Your task to perform on an android device: Show me productivity apps on the Play Store Image 0: 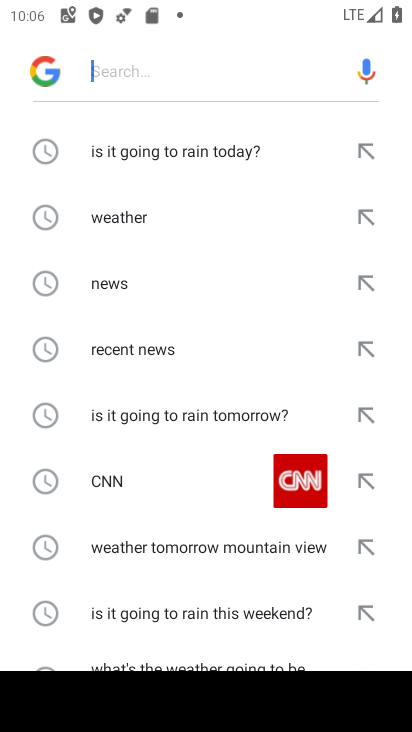
Step 0: press home button
Your task to perform on an android device: Show me productivity apps on the Play Store Image 1: 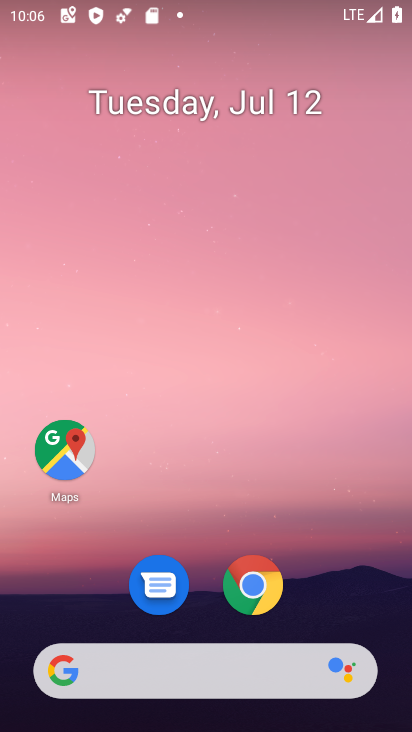
Step 1: drag from (188, 651) to (318, 157)
Your task to perform on an android device: Show me productivity apps on the Play Store Image 2: 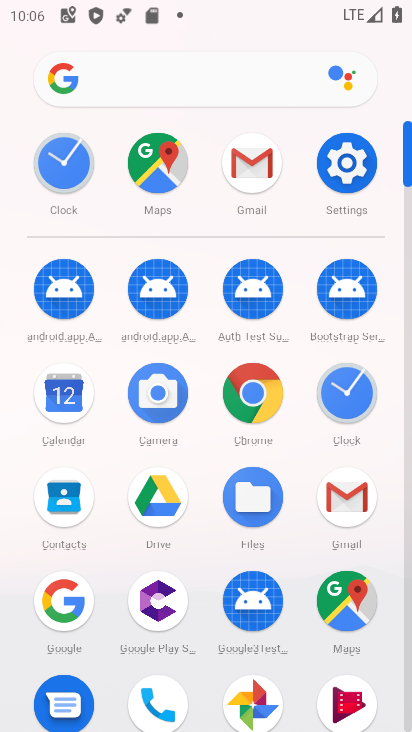
Step 2: drag from (193, 633) to (297, 200)
Your task to perform on an android device: Show me productivity apps on the Play Store Image 3: 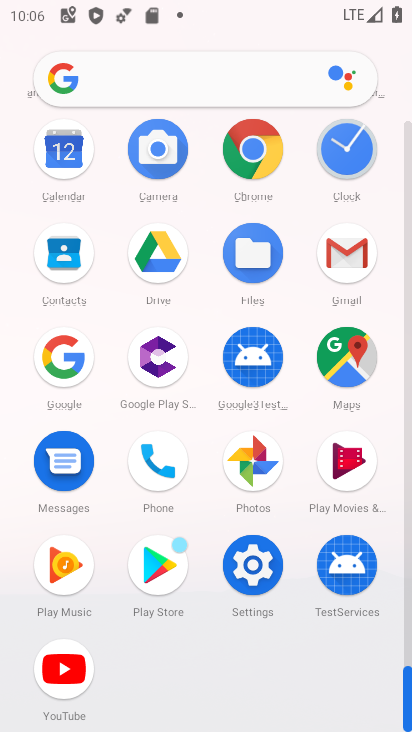
Step 3: click (162, 566)
Your task to perform on an android device: Show me productivity apps on the Play Store Image 4: 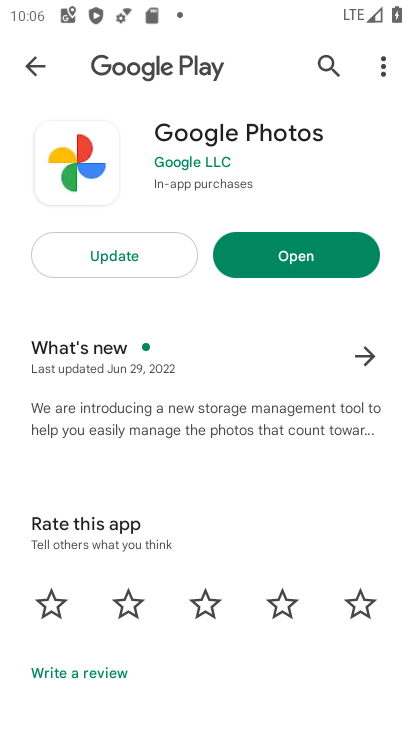
Step 4: click (31, 67)
Your task to perform on an android device: Show me productivity apps on the Play Store Image 5: 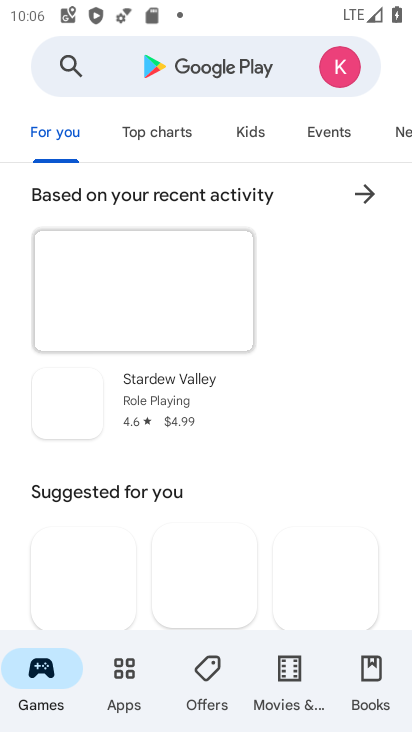
Step 5: click (128, 687)
Your task to perform on an android device: Show me productivity apps on the Play Store Image 6: 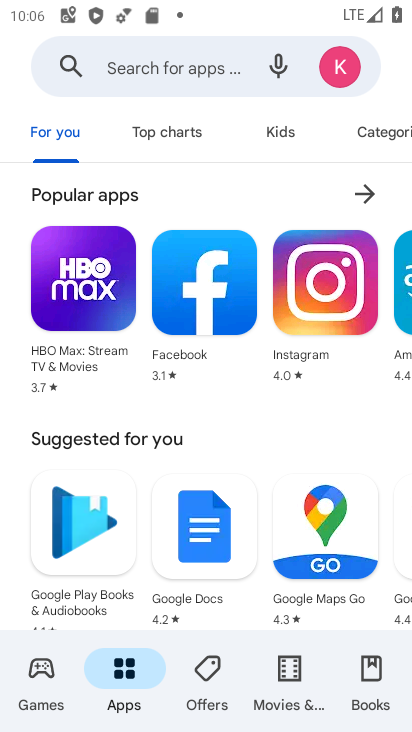
Step 6: click (386, 135)
Your task to perform on an android device: Show me productivity apps on the Play Store Image 7: 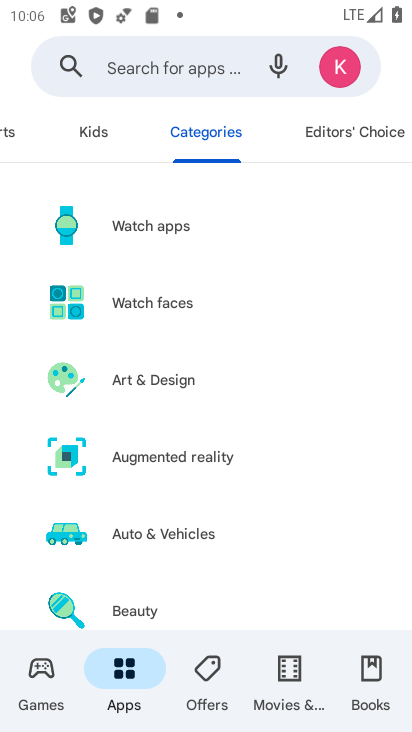
Step 7: drag from (273, 552) to (360, 112)
Your task to perform on an android device: Show me productivity apps on the Play Store Image 8: 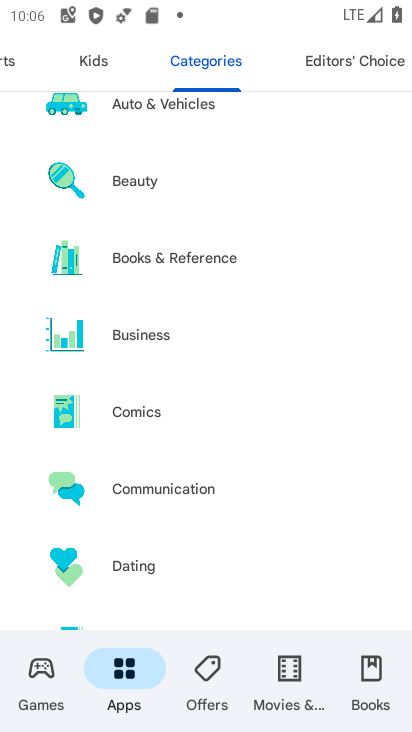
Step 8: drag from (258, 551) to (330, 0)
Your task to perform on an android device: Show me productivity apps on the Play Store Image 9: 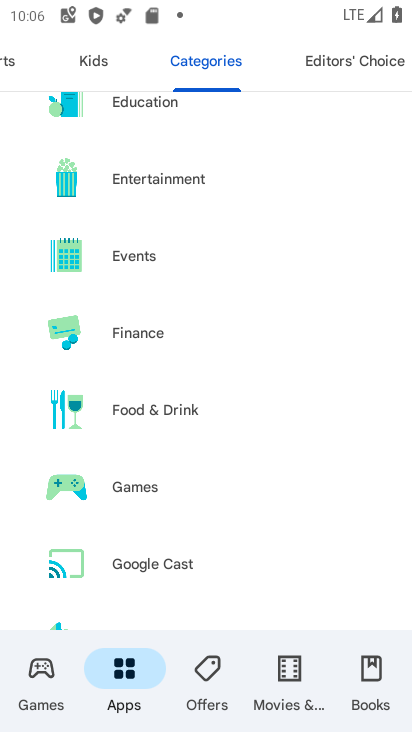
Step 9: drag from (275, 564) to (378, 23)
Your task to perform on an android device: Show me productivity apps on the Play Store Image 10: 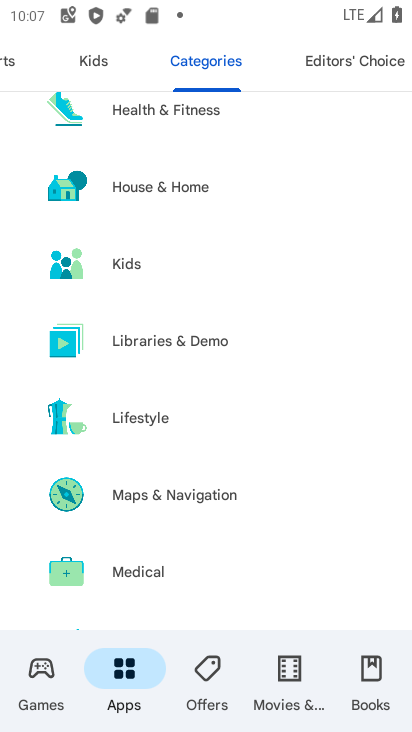
Step 10: drag from (318, 566) to (355, 191)
Your task to perform on an android device: Show me productivity apps on the Play Store Image 11: 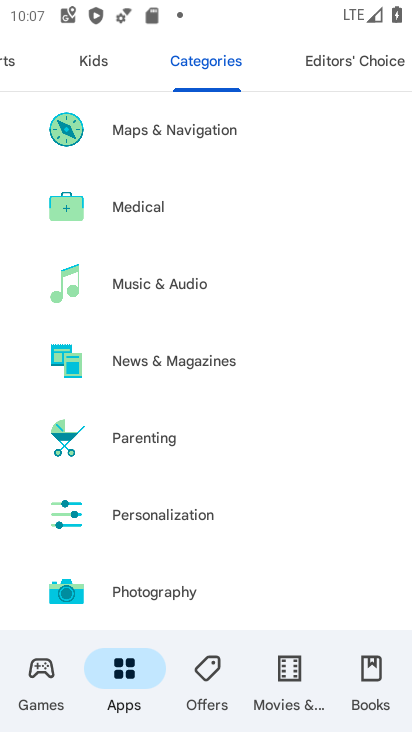
Step 11: drag from (267, 554) to (295, 97)
Your task to perform on an android device: Show me productivity apps on the Play Store Image 12: 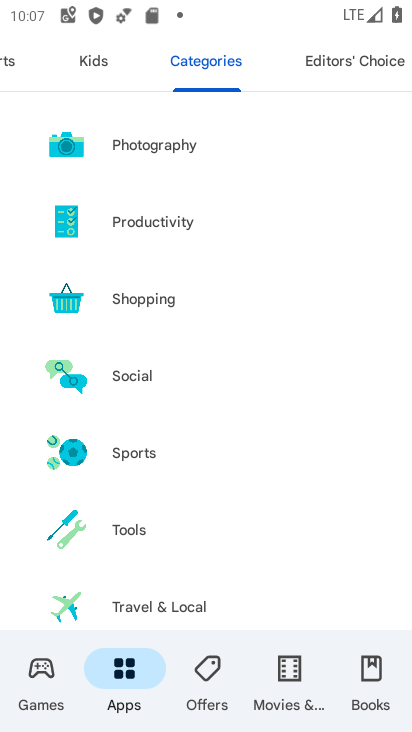
Step 12: drag from (269, 487) to (305, 541)
Your task to perform on an android device: Show me productivity apps on the Play Store Image 13: 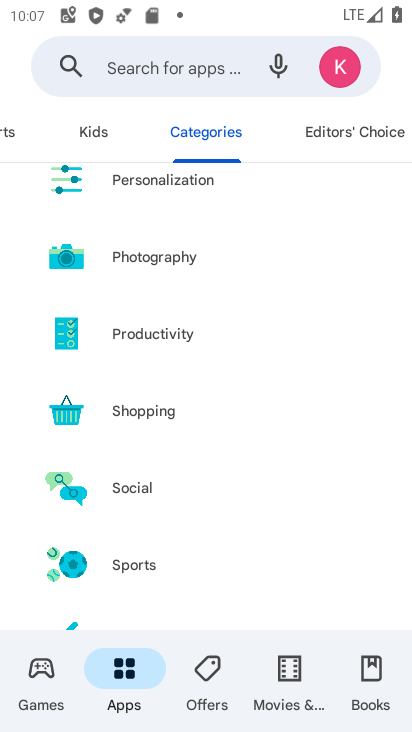
Step 13: click (177, 330)
Your task to perform on an android device: Show me productivity apps on the Play Store Image 14: 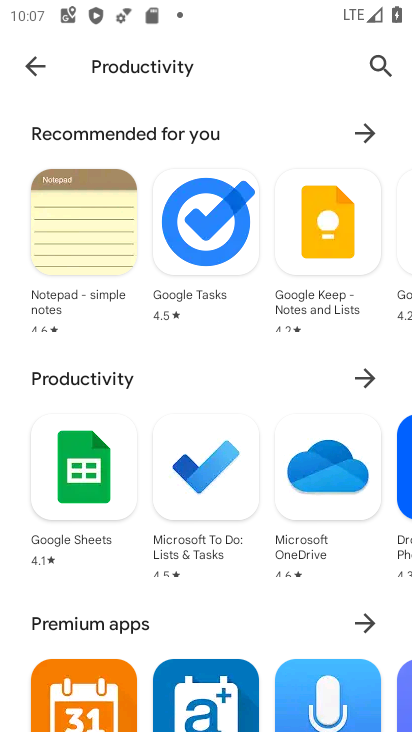
Step 14: task complete